Your task to perform on an android device: turn on airplane mode Image 0: 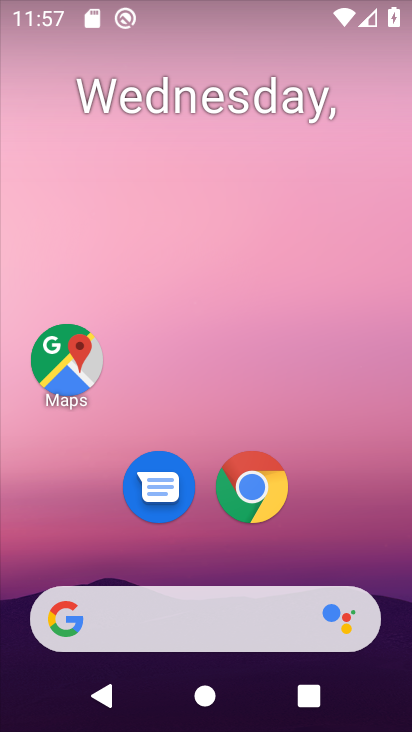
Step 0: drag from (239, 632) to (280, 106)
Your task to perform on an android device: turn on airplane mode Image 1: 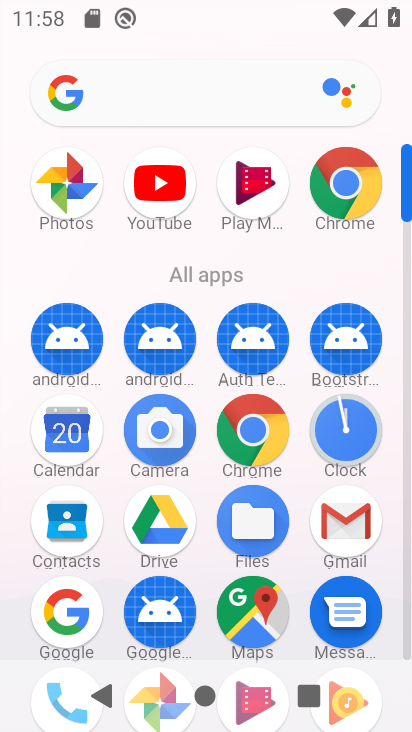
Step 1: drag from (111, 490) to (210, 101)
Your task to perform on an android device: turn on airplane mode Image 2: 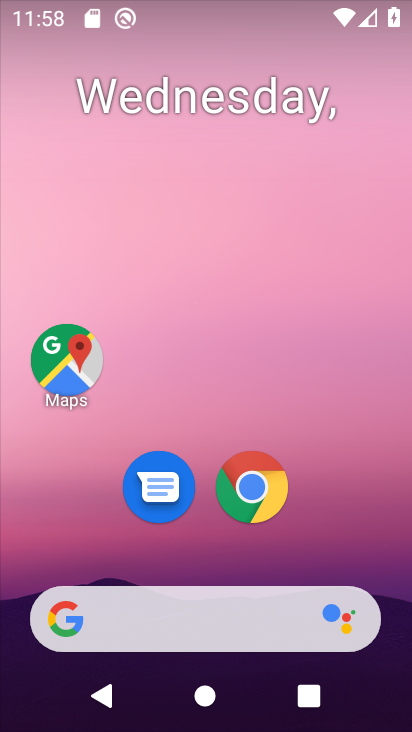
Step 2: drag from (254, 655) to (318, 149)
Your task to perform on an android device: turn on airplane mode Image 3: 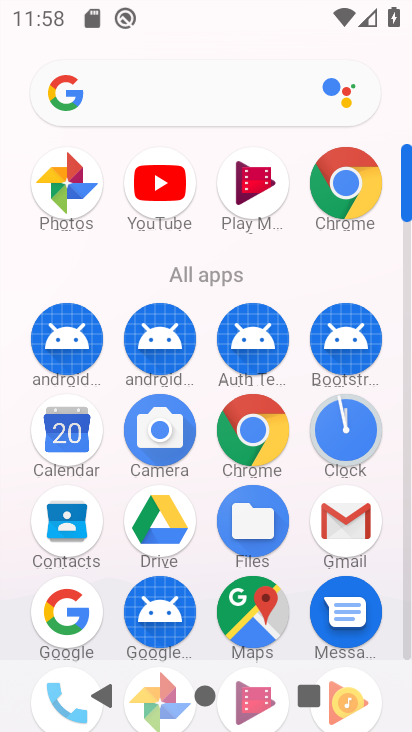
Step 3: drag from (295, 559) to (306, 364)
Your task to perform on an android device: turn on airplane mode Image 4: 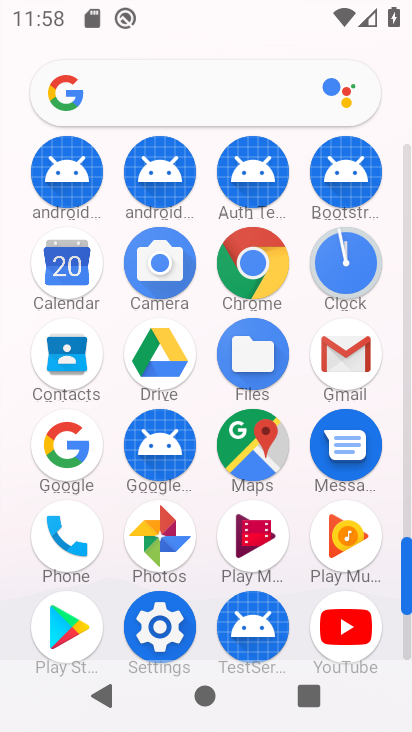
Step 4: click (163, 615)
Your task to perform on an android device: turn on airplane mode Image 5: 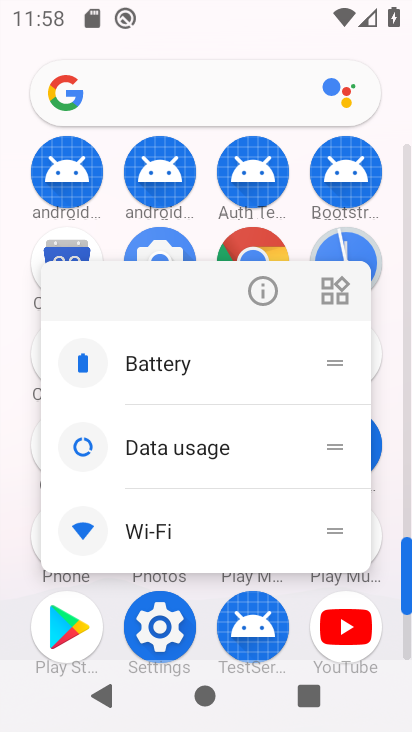
Step 5: click (153, 603)
Your task to perform on an android device: turn on airplane mode Image 6: 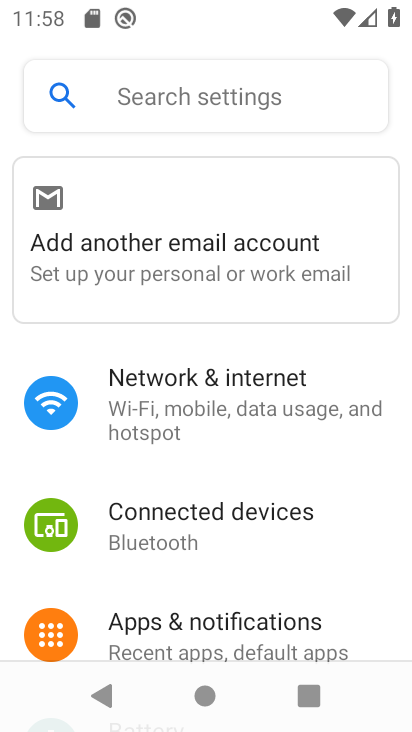
Step 6: click (181, 391)
Your task to perform on an android device: turn on airplane mode Image 7: 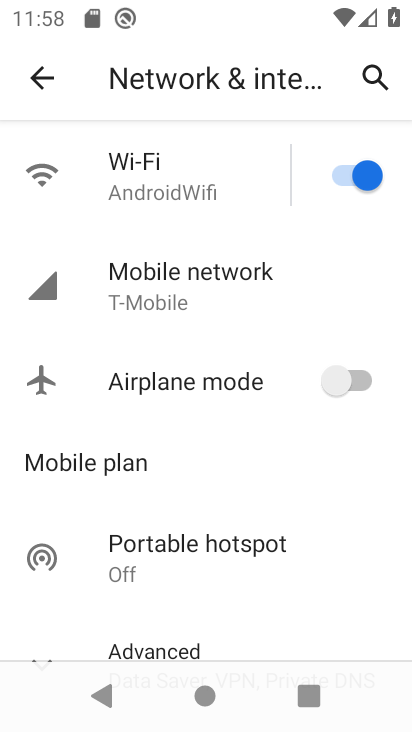
Step 7: click (147, 377)
Your task to perform on an android device: turn on airplane mode Image 8: 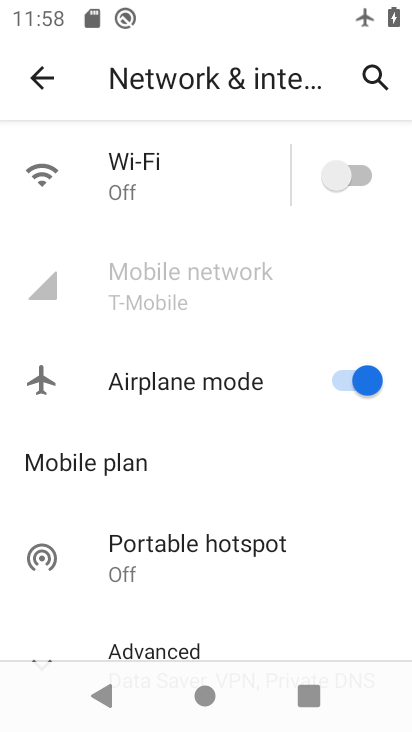
Step 8: task complete